Your task to perform on an android device: Open calendar and show me the fourth week of next month Image 0: 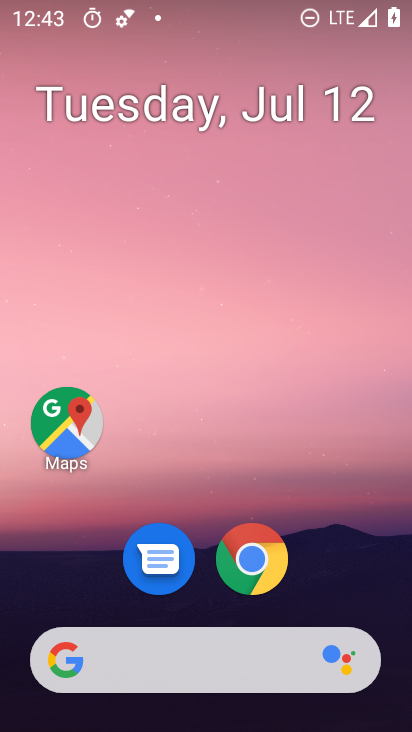
Step 0: drag from (166, 548) to (258, 103)
Your task to perform on an android device: Open calendar and show me the fourth week of next month Image 1: 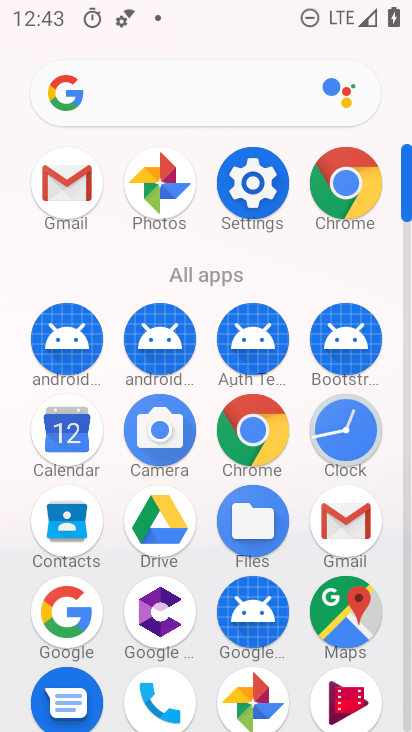
Step 1: click (53, 429)
Your task to perform on an android device: Open calendar and show me the fourth week of next month Image 2: 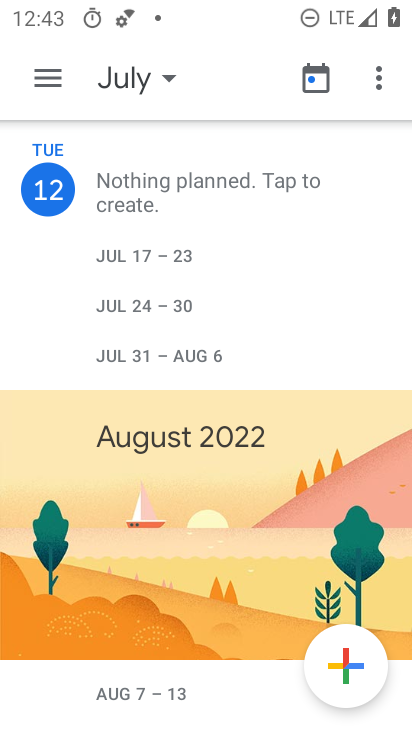
Step 2: click (149, 63)
Your task to perform on an android device: Open calendar and show me the fourth week of next month Image 3: 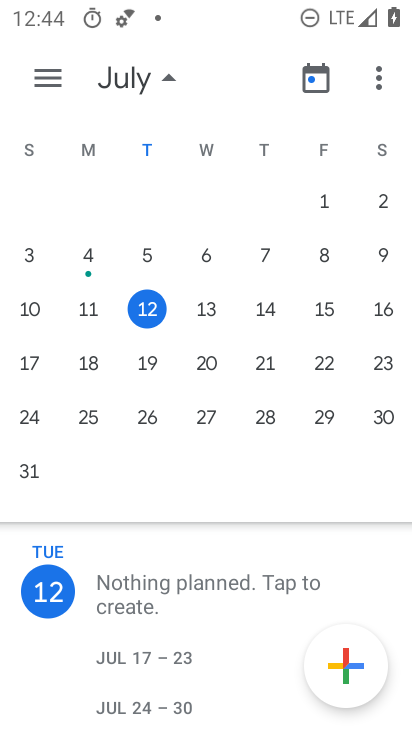
Step 3: drag from (380, 322) to (0, 330)
Your task to perform on an android device: Open calendar and show me the fourth week of next month Image 4: 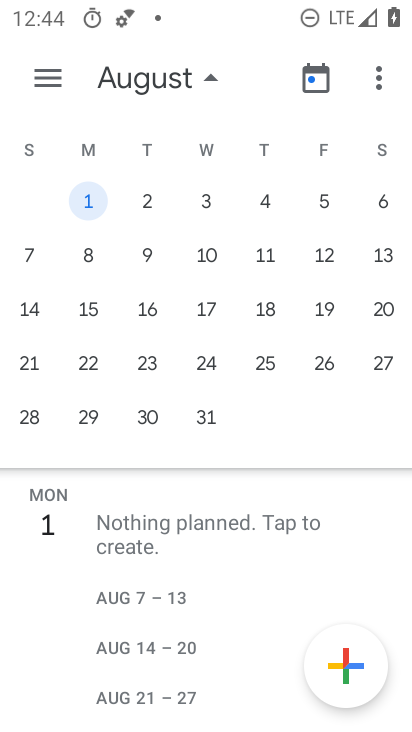
Step 4: click (88, 367)
Your task to perform on an android device: Open calendar and show me the fourth week of next month Image 5: 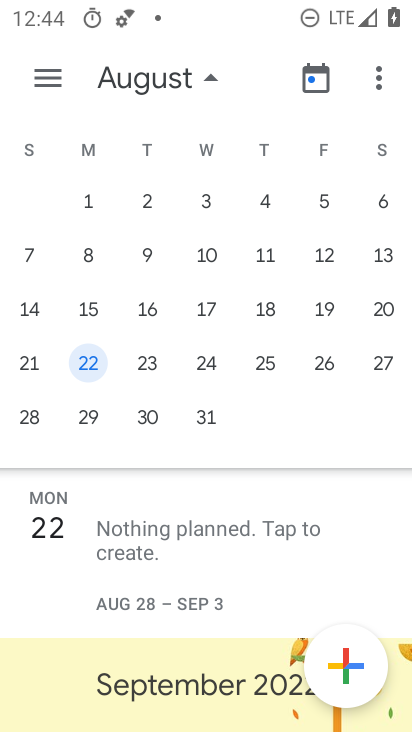
Step 5: task complete